Your task to perform on an android device: clear history in the chrome app Image 0: 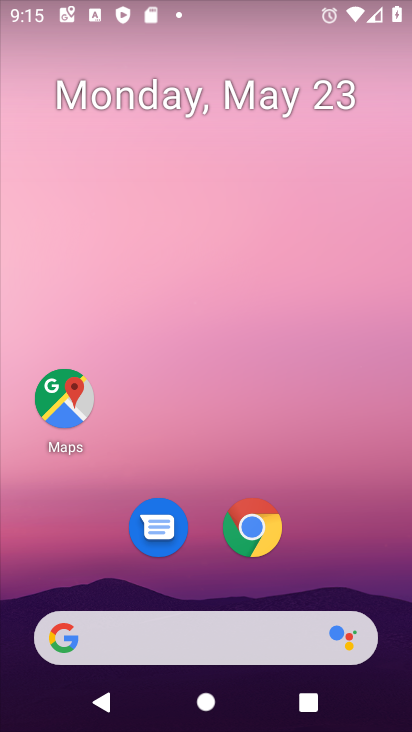
Step 0: drag from (336, 550) to (250, 14)
Your task to perform on an android device: clear history in the chrome app Image 1: 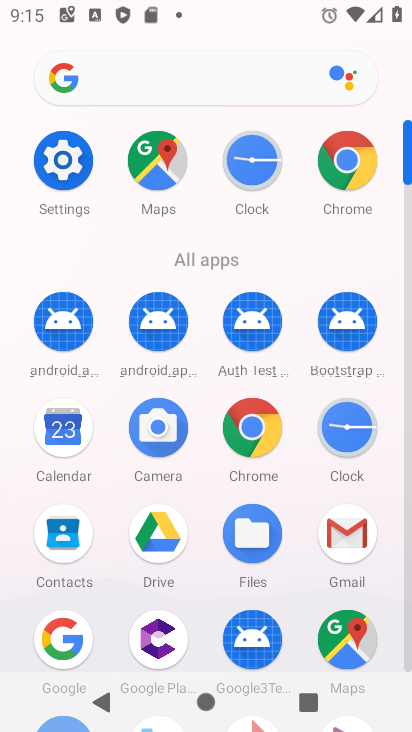
Step 1: drag from (1, 606) to (6, 193)
Your task to perform on an android device: clear history in the chrome app Image 2: 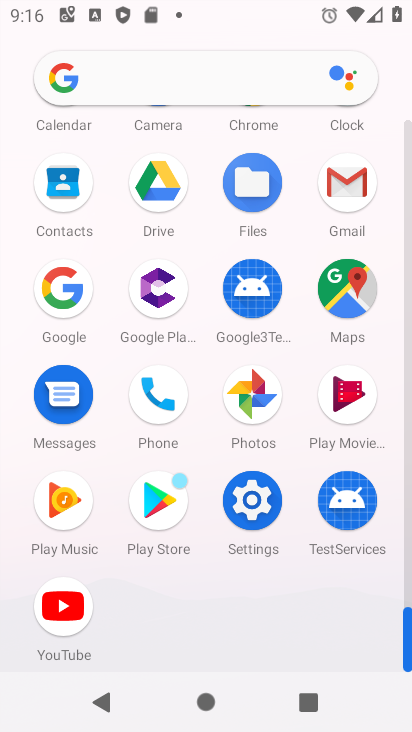
Step 2: drag from (16, 209) to (0, 597)
Your task to perform on an android device: clear history in the chrome app Image 3: 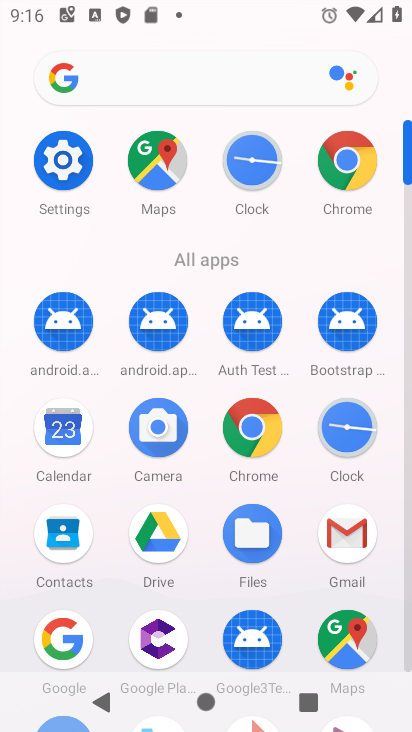
Step 3: click (252, 425)
Your task to perform on an android device: clear history in the chrome app Image 4: 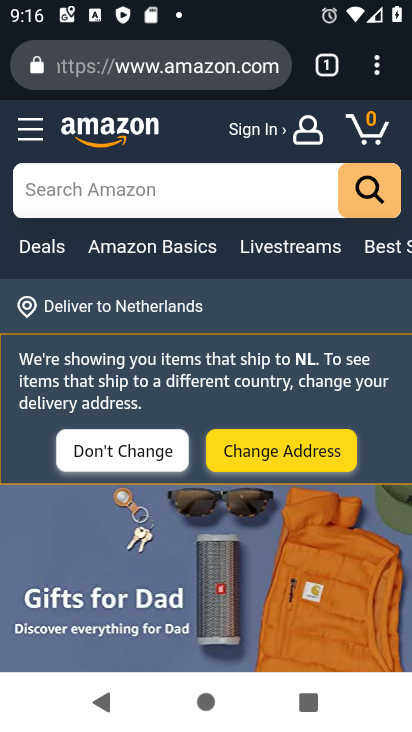
Step 4: drag from (378, 66) to (156, 369)
Your task to perform on an android device: clear history in the chrome app Image 5: 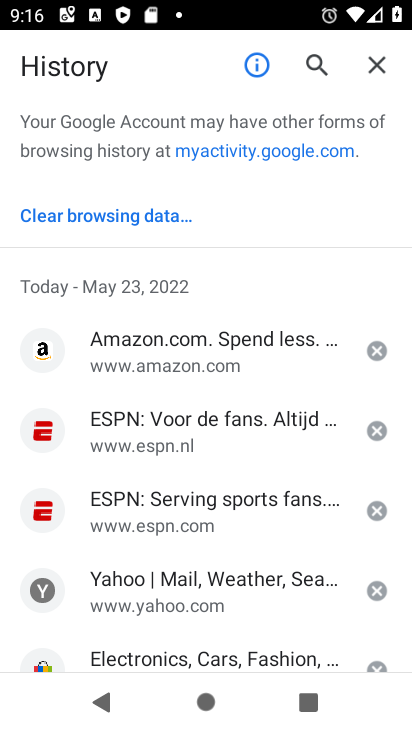
Step 5: click (130, 221)
Your task to perform on an android device: clear history in the chrome app Image 6: 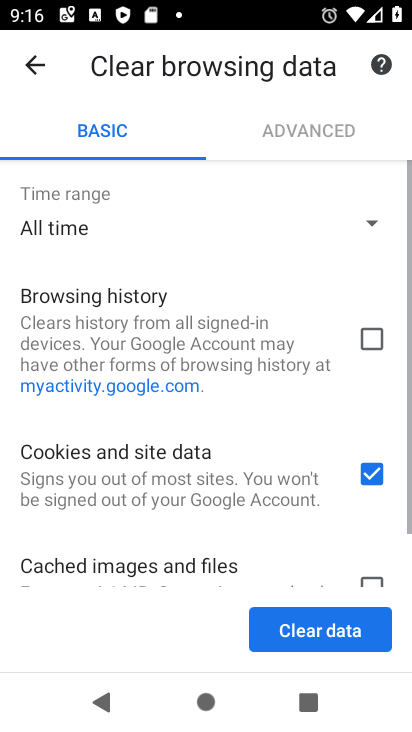
Step 6: click (297, 622)
Your task to perform on an android device: clear history in the chrome app Image 7: 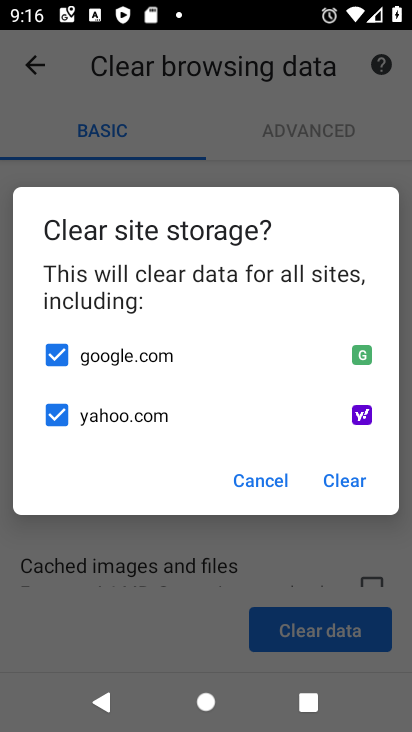
Step 7: click (353, 482)
Your task to perform on an android device: clear history in the chrome app Image 8: 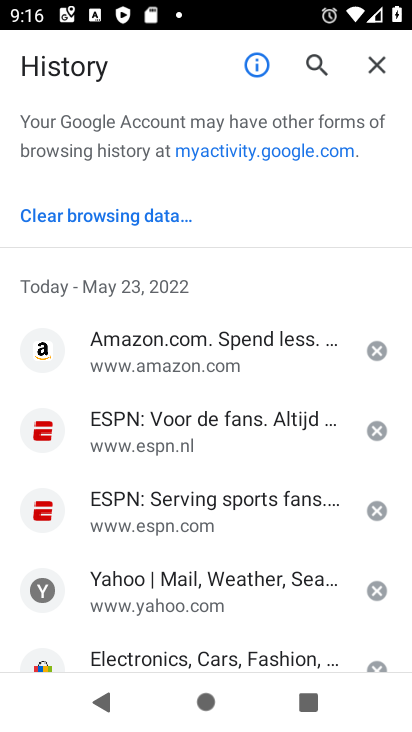
Step 8: task complete